Your task to perform on an android device: Check the latest toasters on Target. Image 0: 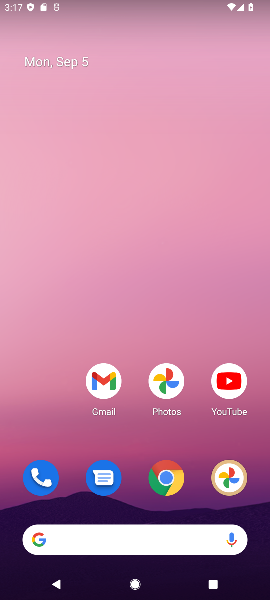
Step 0: drag from (132, 445) to (151, 211)
Your task to perform on an android device: Check the latest toasters on Target. Image 1: 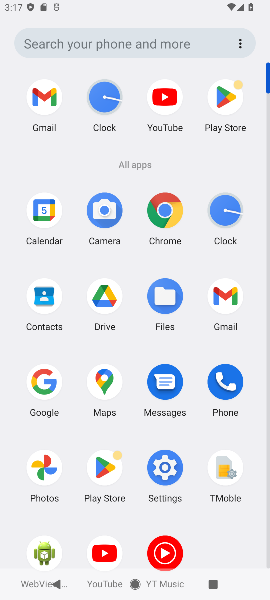
Step 1: click (161, 211)
Your task to perform on an android device: Check the latest toasters on Target. Image 2: 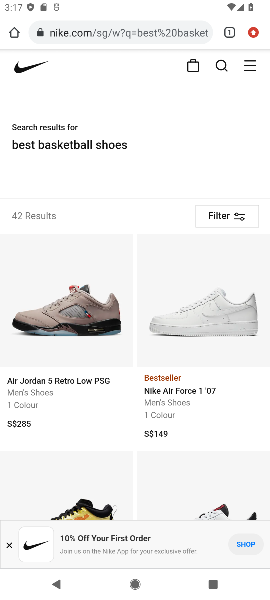
Step 2: click (162, 36)
Your task to perform on an android device: Check the latest toasters on Target. Image 3: 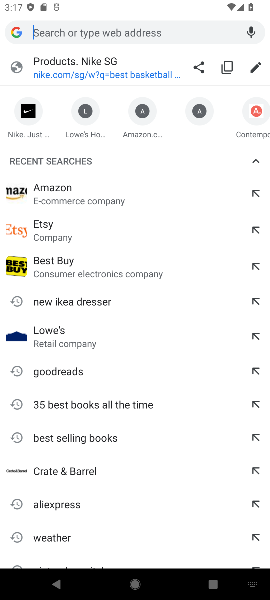
Step 3: type "target"
Your task to perform on an android device: Check the latest toasters on Target. Image 4: 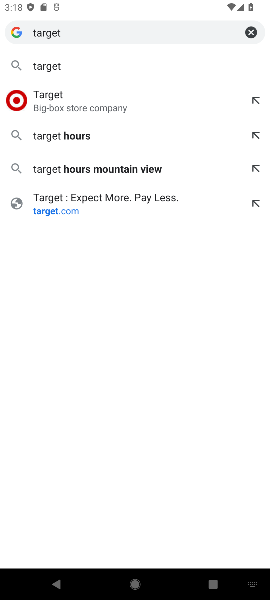
Step 4: click (68, 102)
Your task to perform on an android device: Check the latest toasters on Target. Image 5: 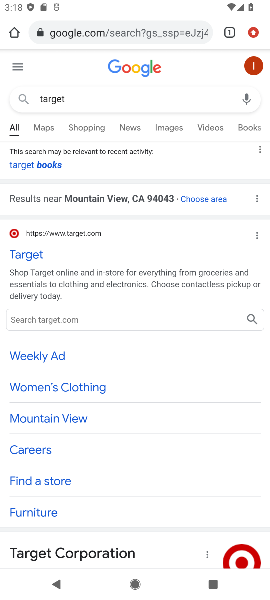
Step 5: click (29, 255)
Your task to perform on an android device: Check the latest toasters on Target. Image 6: 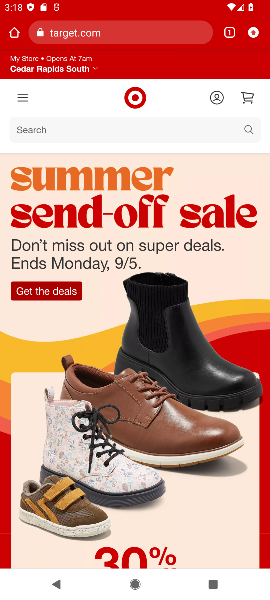
Step 6: click (249, 131)
Your task to perform on an android device: Check the latest toasters on Target. Image 7: 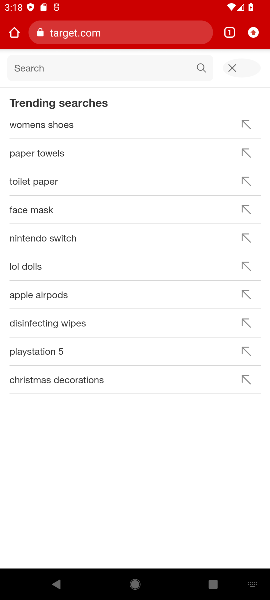
Step 7: type "latest toasters"
Your task to perform on an android device: Check the latest toasters on Target. Image 8: 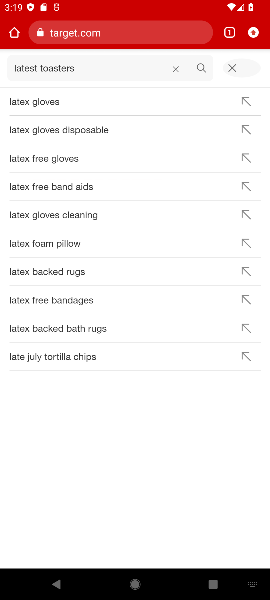
Step 8: click (202, 68)
Your task to perform on an android device: Check the latest toasters on Target. Image 9: 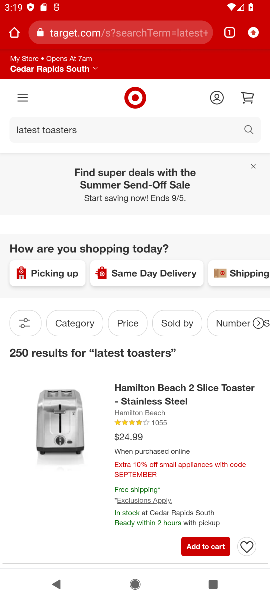
Step 9: task complete